Your task to perform on an android device: check the backup settings in the google photos Image 0: 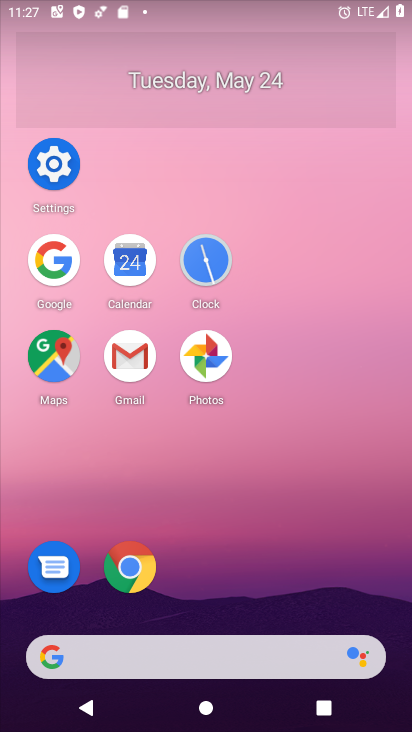
Step 0: click (198, 345)
Your task to perform on an android device: check the backup settings in the google photos Image 1: 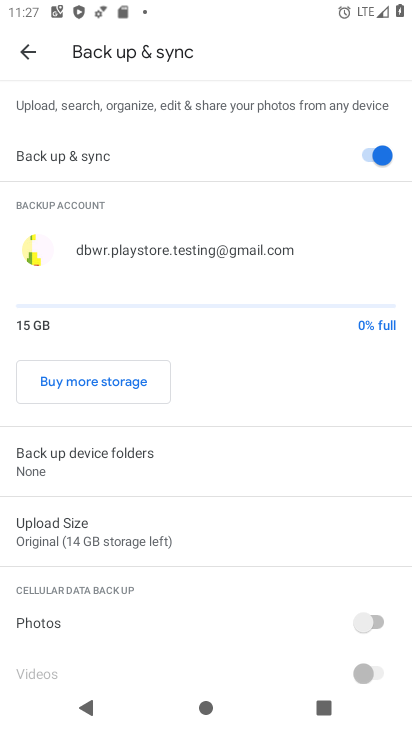
Step 1: task complete